Your task to perform on an android device: turn off location history Image 0: 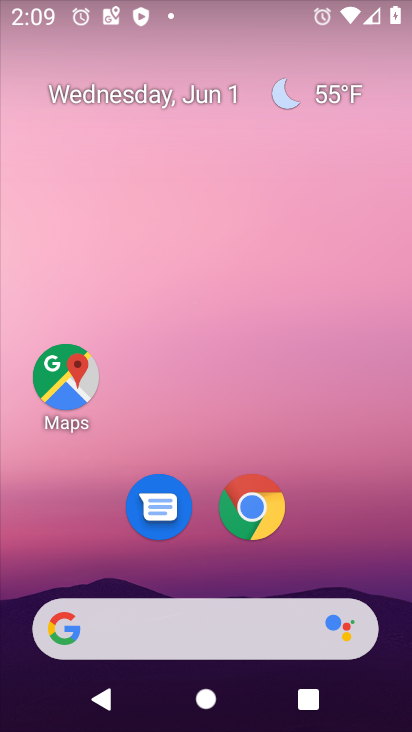
Step 0: click (59, 384)
Your task to perform on an android device: turn off location history Image 1: 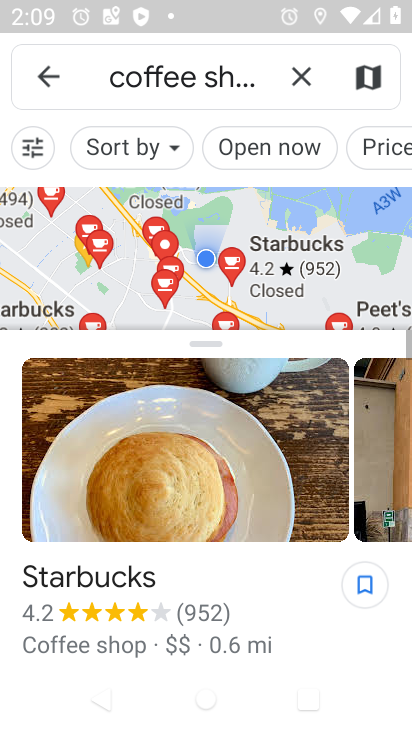
Step 1: click (301, 80)
Your task to perform on an android device: turn off location history Image 2: 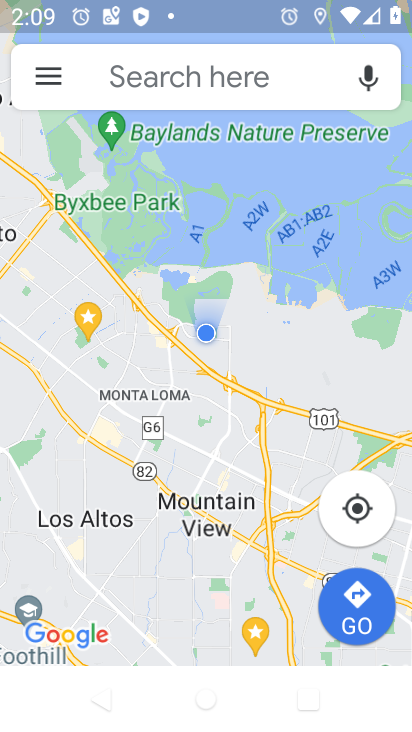
Step 2: click (44, 85)
Your task to perform on an android device: turn off location history Image 3: 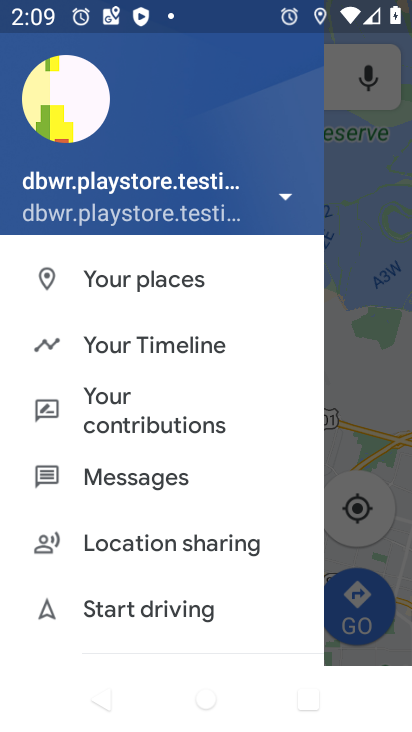
Step 3: click (119, 350)
Your task to perform on an android device: turn off location history Image 4: 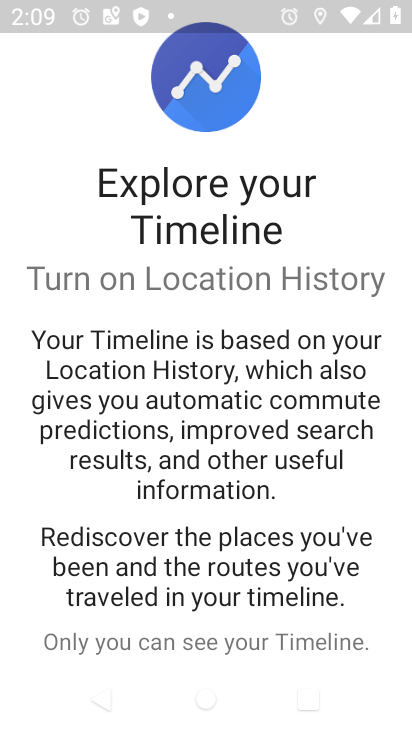
Step 4: drag from (228, 544) to (230, 133)
Your task to perform on an android device: turn off location history Image 5: 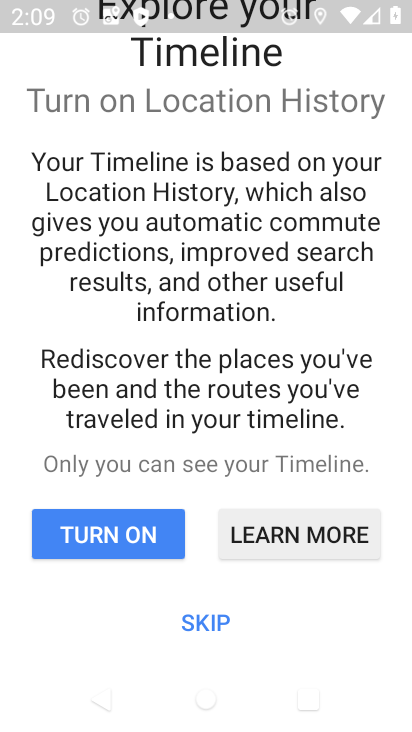
Step 5: click (211, 621)
Your task to perform on an android device: turn off location history Image 6: 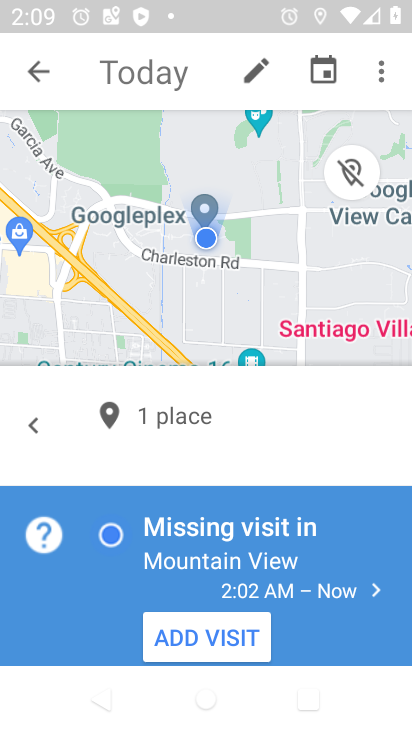
Step 6: click (379, 71)
Your task to perform on an android device: turn off location history Image 7: 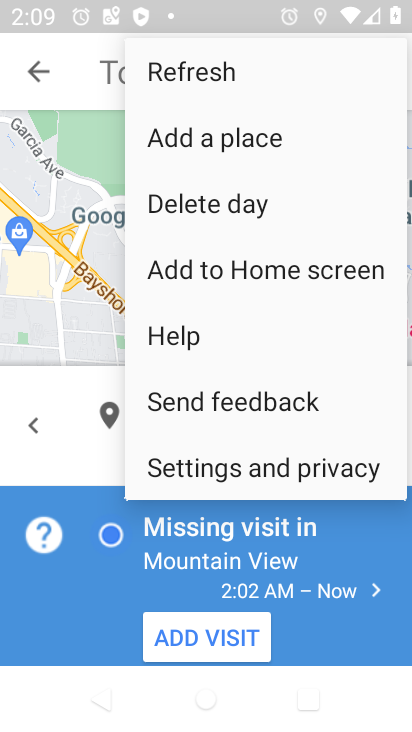
Step 7: click (186, 487)
Your task to perform on an android device: turn off location history Image 8: 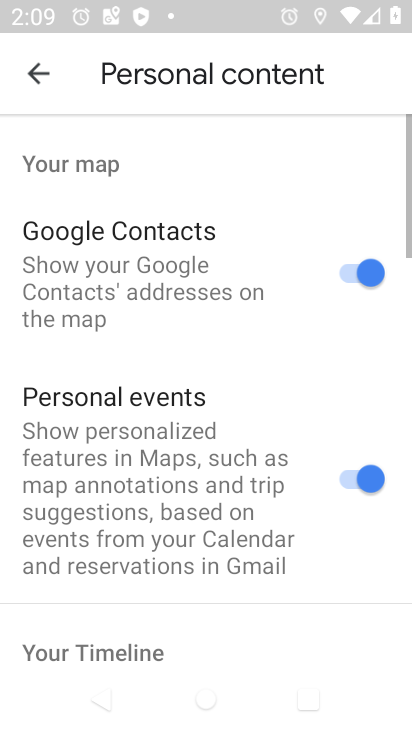
Step 8: drag from (86, 563) to (130, 57)
Your task to perform on an android device: turn off location history Image 9: 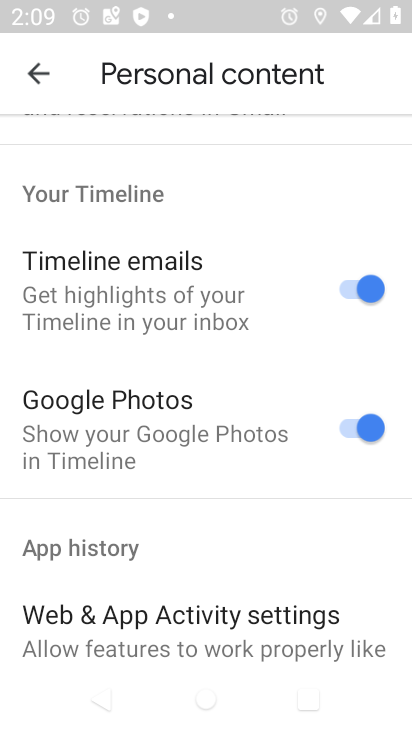
Step 9: drag from (89, 514) to (125, 76)
Your task to perform on an android device: turn off location history Image 10: 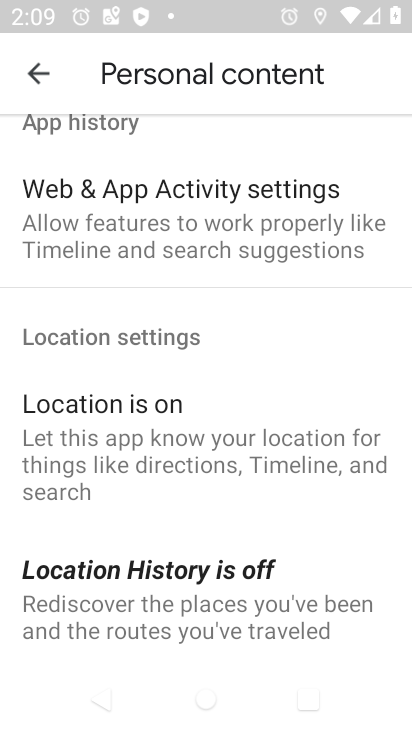
Step 10: drag from (119, 488) to (135, 151)
Your task to perform on an android device: turn off location history Image 11: 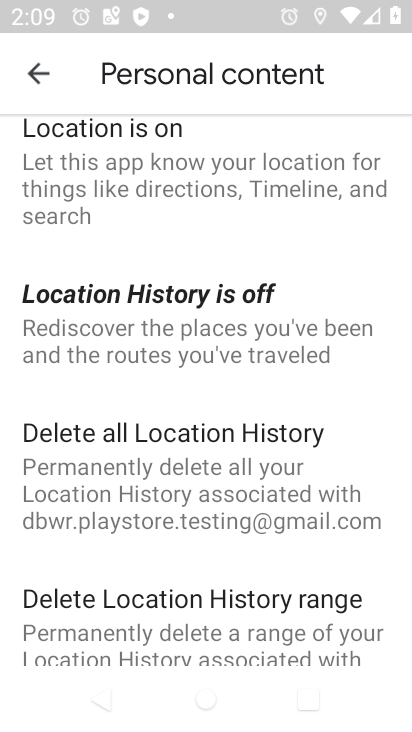
Step 11: click (118, 354)
Your task to perform on an android device: turn off location history Image 12: 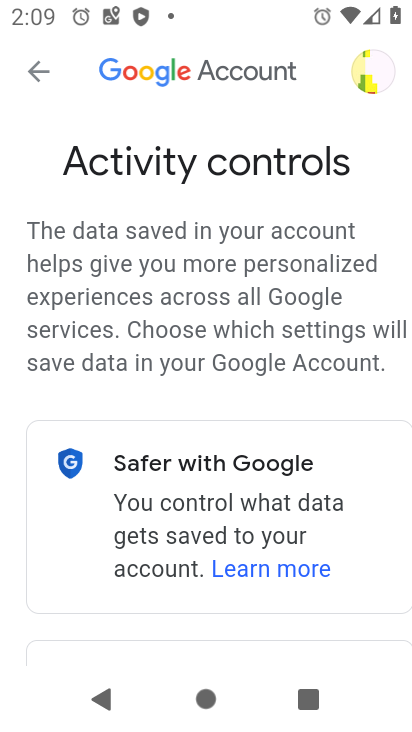
Step 12: task complete